Your task to perform on an android device: turn off improve location accuracy Image 0: 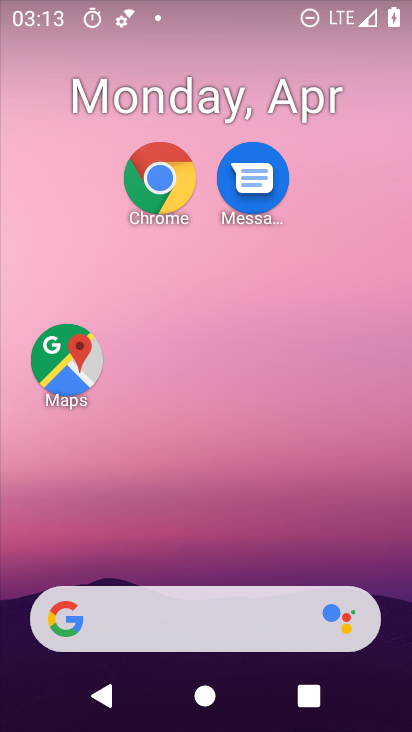
Step 0: drag from (247, 580) to (219, 92)
Your task to perform on an android device: turn off improve location accuracy Image 1: 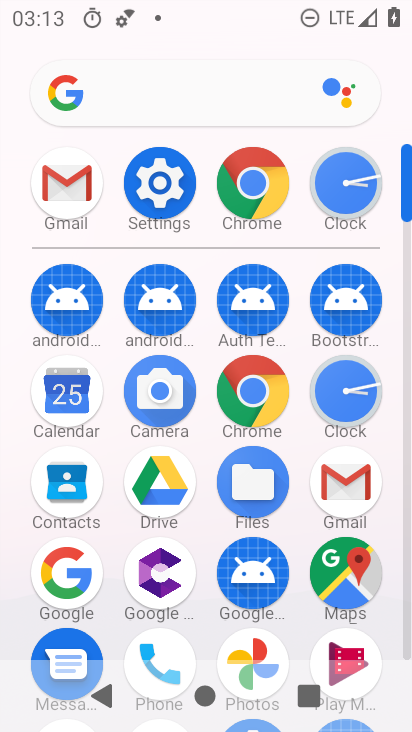
Step 1: click (154, 174)
Your task to perform on an android device: turn off improve location accuracy Image 2: 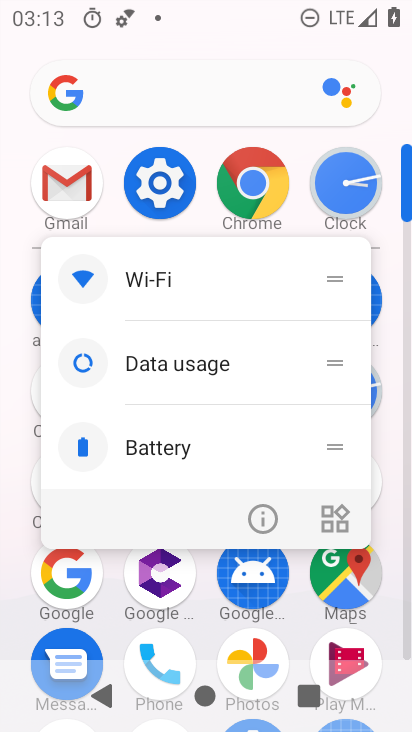
Step 2: click (168, 193)
Your task to perform on an android device: turn off improve location accuracy Image 3: 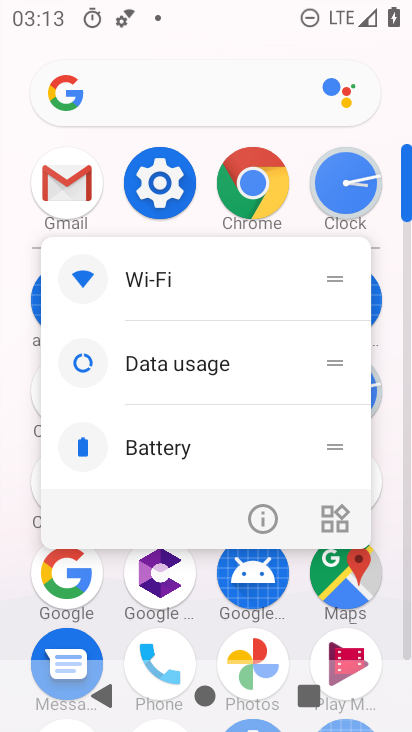
Step 3: click (168, 193)
Your task to perform on an android device: turn off improve location accuracy Image 4: 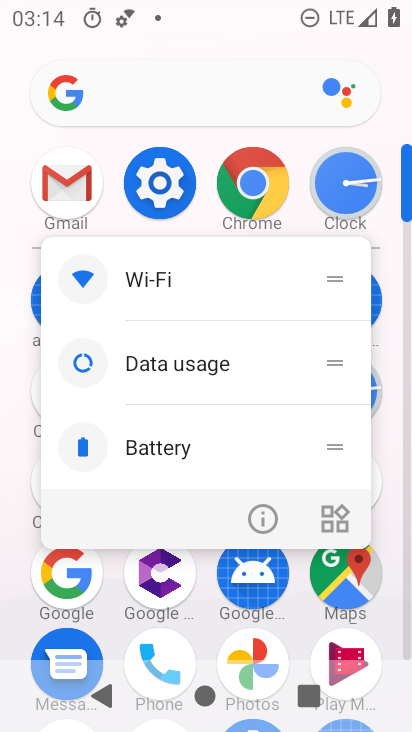
Step 4: drag from (382, 590) to (400, 164)
Your task to perform on an android device: turn off improve location accuracy Image 5: 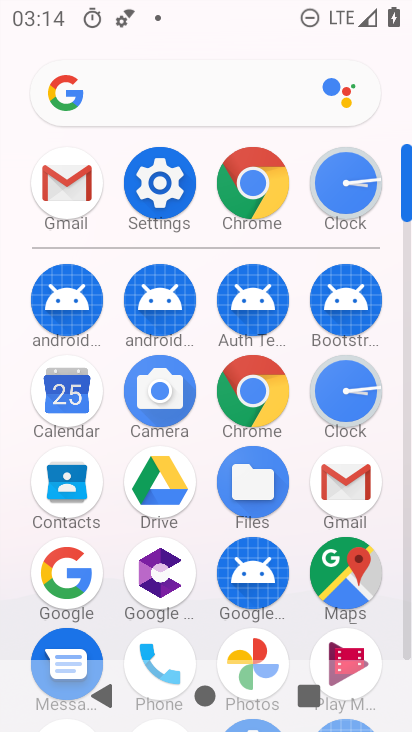
Step 5: drag from (269, 581) to (283, 195)
Your task to perform on an android device: turn off improve location accuracy Image 6: 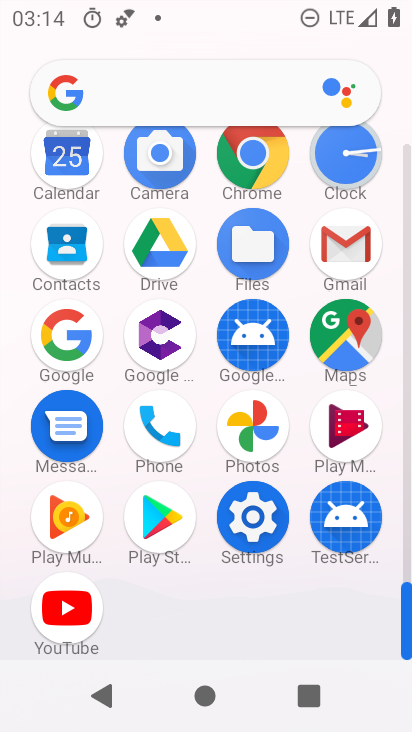
Step 6: click (270, 540)
Your task to perform on an android device: turn off improve location accuracy Image 7: 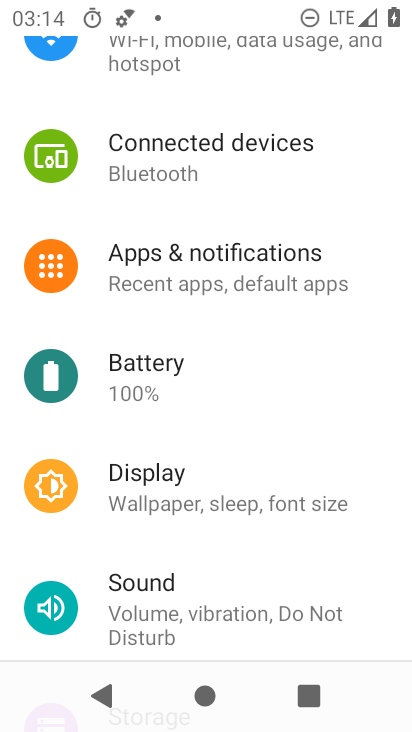
Step 7: click (249, 172)
Your task to perform on an android device: turn off improve location accuracy Image 8: 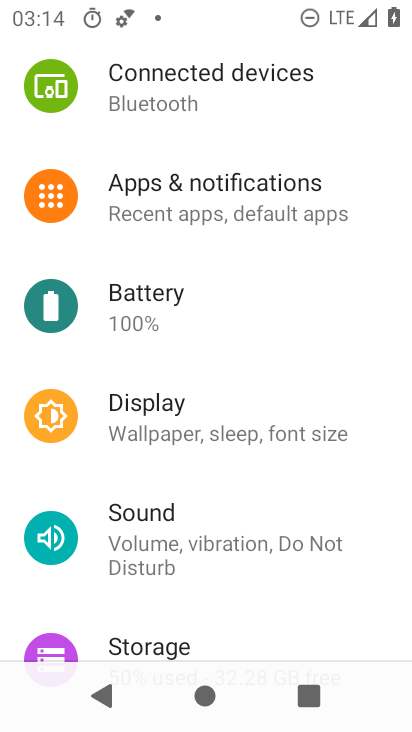
Step 8: drag from (199, 610) to (249, 98)
Your task to perform on an android device: turn off improve location accuracy Image 9: 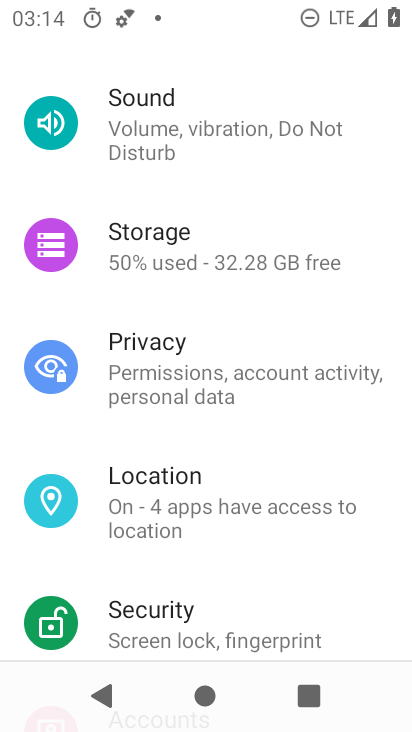
Step 9: click (256, 486)
Your task to perform on an android device: turn off improve location accuracy Image 10: 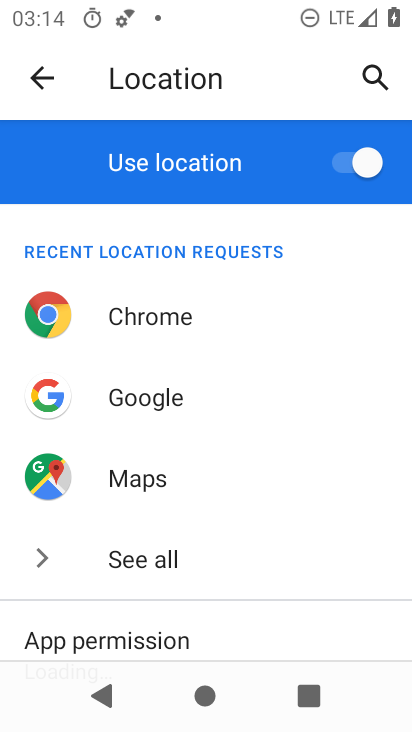
Step 10: drag from (258, 658) to (299, 125)
Your task to perform on an android device: turn off improve location accuracy Image 11: 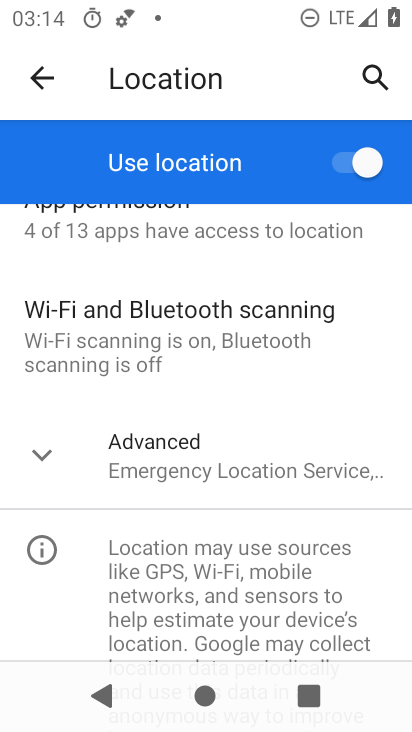
Step 11: click (236, 465)
Your task to perform on an android device: turn off improve location accuracy Image 12: 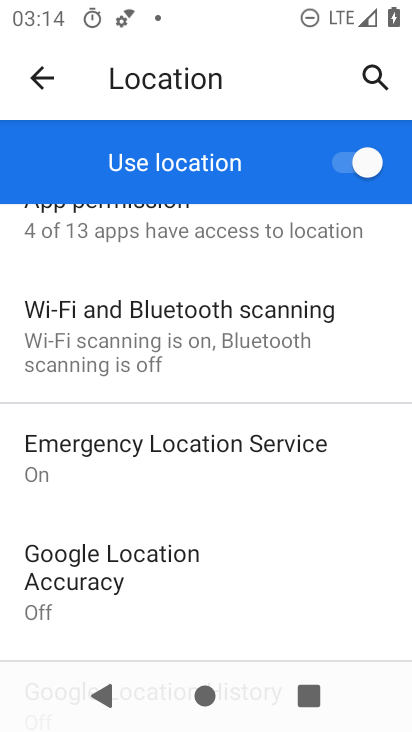
Step 12: task complete